Your task to perform on an android device: Go to internet settings Image 0: 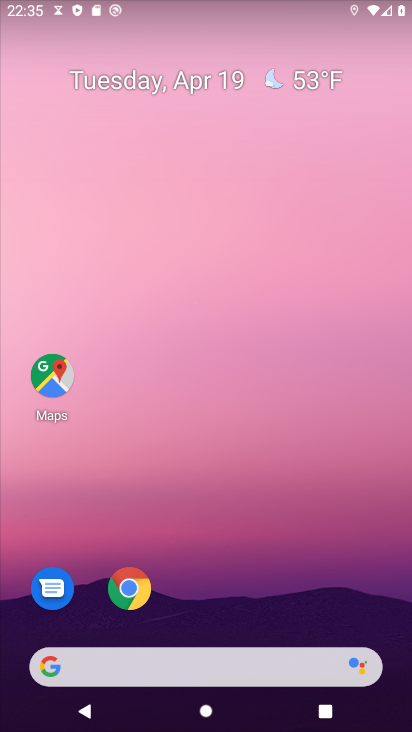
Step 0: drag from (226, 564) to (254, 46)
Your task to perform on an android device: Go to internet settings Image 1: 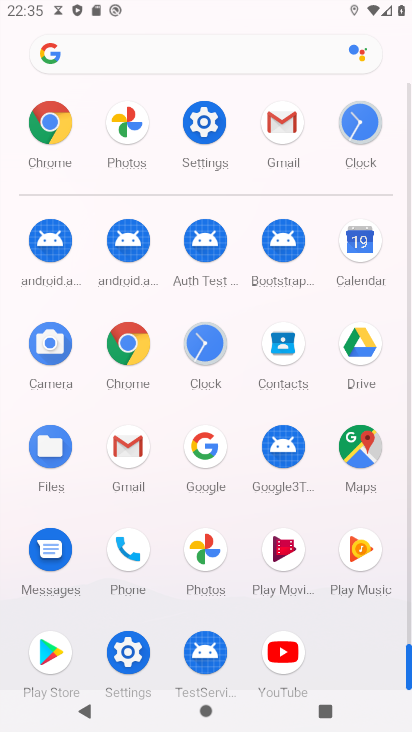
Step 1: click (209, 124)
Your task to perform on an android device: Go to internet settings Image 2: 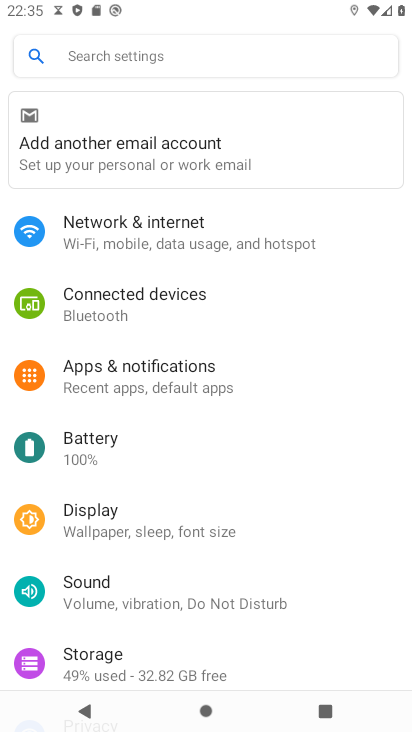
Step 2: click (156, 242)
Your task to perform on an android device: Go to internet settings Image 3: 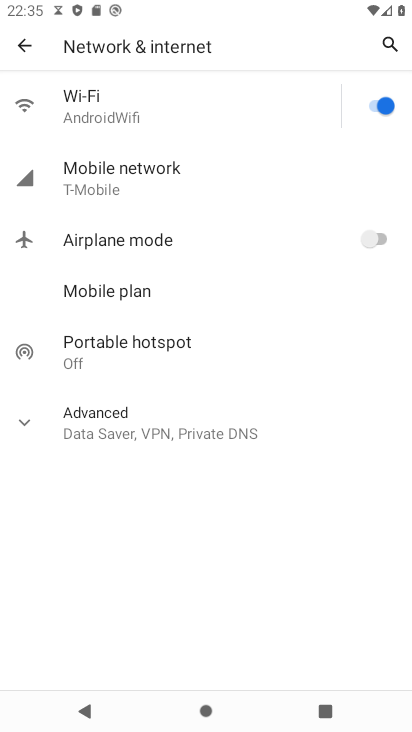
Step 3: task complete